Your task to perform on an android device: uninstall "File Manager" Image 0: 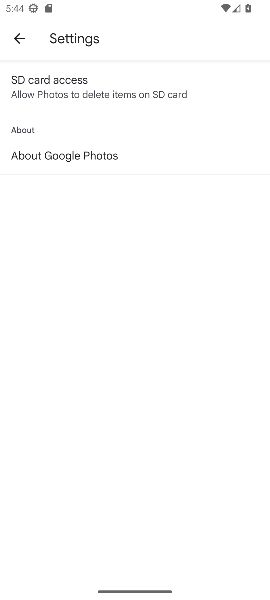
Step 0: press home button
Your task to perform on an android device: uninstall "File Manager" Image 1: 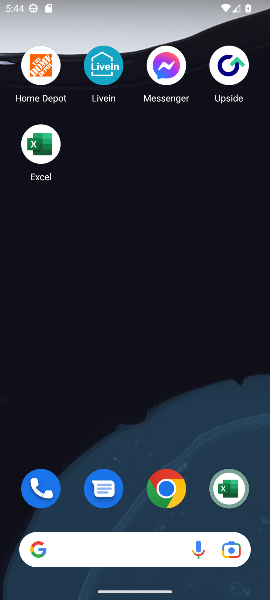
Step 1: drag from (132, 515) to (127, 34)
Your task to perform on an android device: uninstall "File Manager" Image 2: 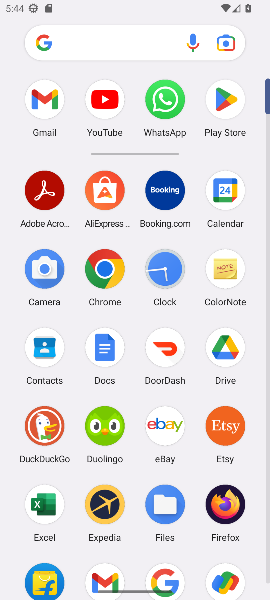
Step 2: click (223, 105)
Your task to perform on an android device: uninstall "File Manager" Image 3: 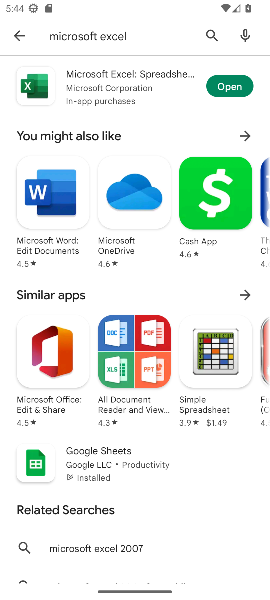
Step 3: click (205, 33)
Your task to perform on an android device: uninstall "File Manager" Image 4: 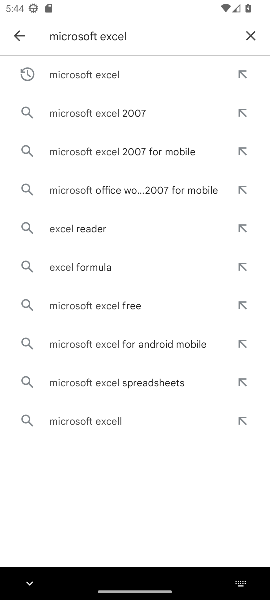
Step 4: click (239, 35)
Your task to perform on an android device: uninstall "File Manager" Image 5: 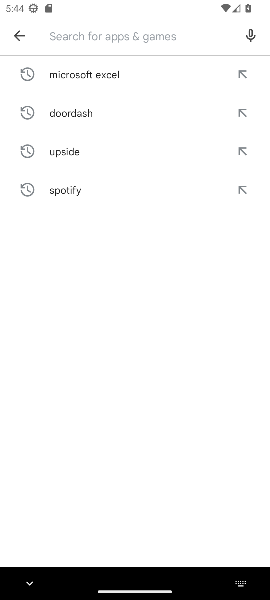
Step 5: type "file manger"
Your task to perform on an android device: uninstall "File Manager" Image 6: 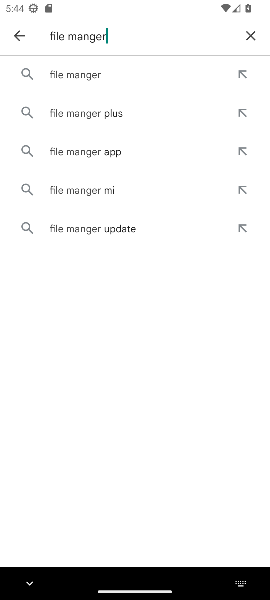
Step 6: click (120, 86)
Your task to perform on an android device: uninstall "File Manager" Image 7: 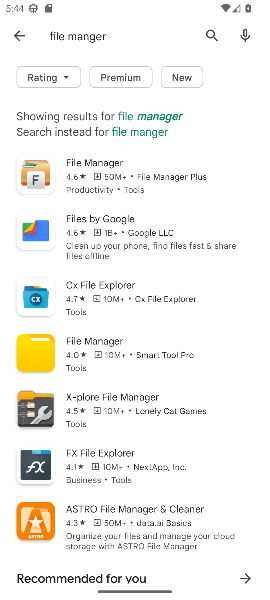
Step 7: click (91, 178)
Your task to perform on an android device: uninstall "File Manager" Image 8: 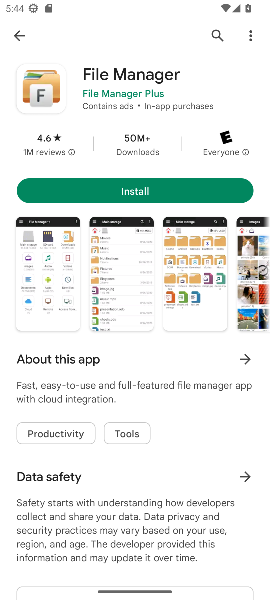
Step 8: click (148, 192)
Your task to perform on an android device: uninstall "File Manager" Image 9: 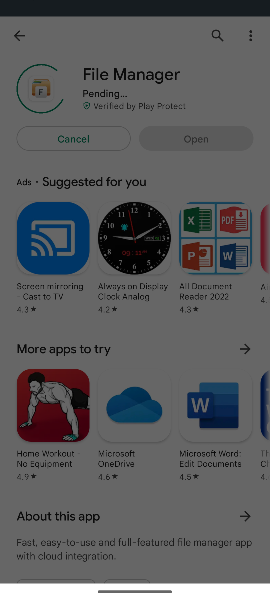
Step 9: task complete